Your task to perform on an android device: turn on wifi Image 0: 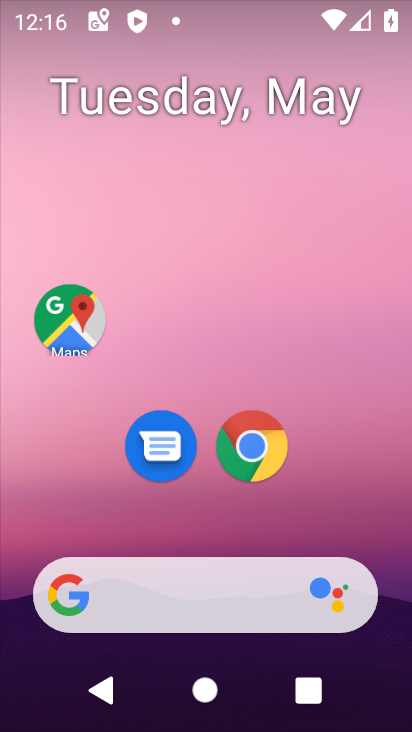
Step 0: drag from (356, 267) to (350, 14)
Your task to perform on an android device: turn on wifi Image 1: 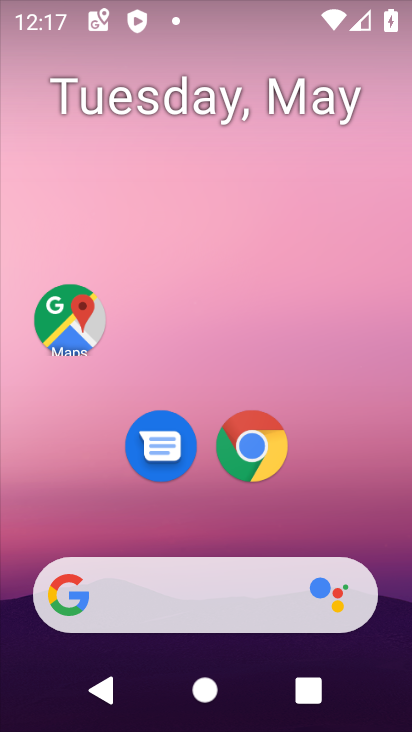
Step 1: click (387, 496)
Your task to perform on an android device: turn on wifi Image 2: 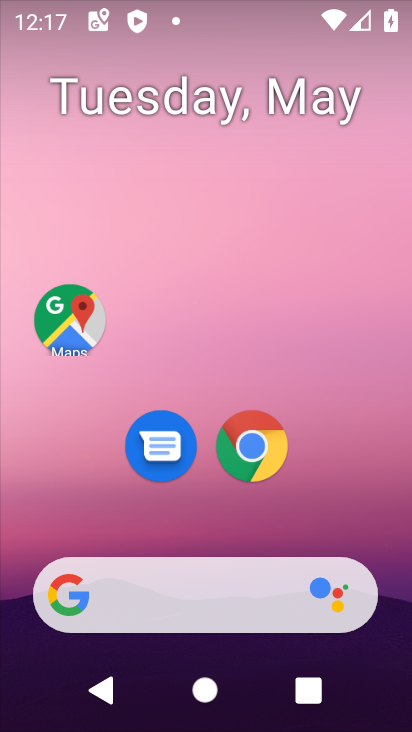
Step 2: drag from (344, 510) to (383, 2)
Your task to perform on an android device: turn on wifi Image 3: 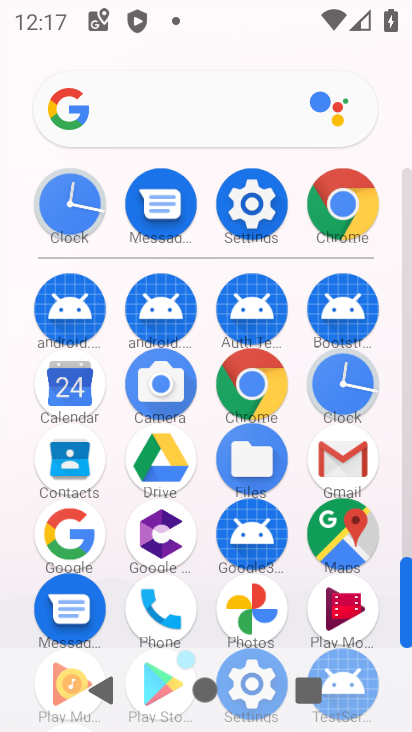
Step 3: click (262, 207)
Your task to perform on an android device: turn on wifi Image 4: 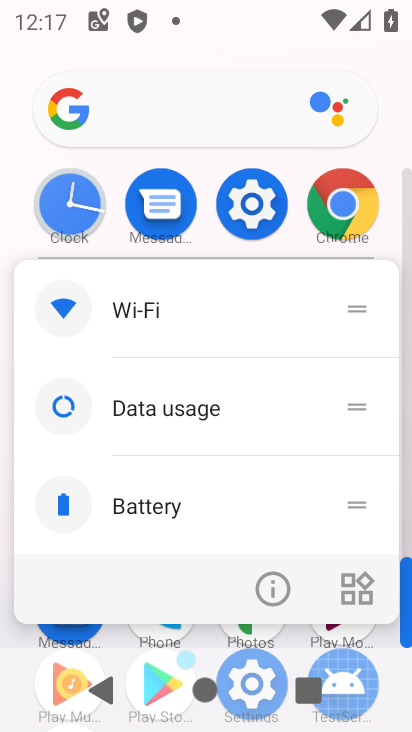
Step 4: click (257, 213)
Your task to perform on an android device: turn on wifi Image 5: 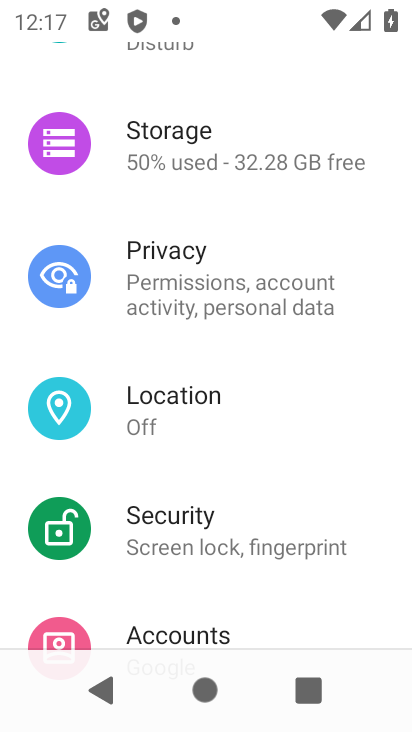
Step 5: drag from (256, 203) to (229, 610)
Your task to perform on an android device: turn on wifi Image 6: 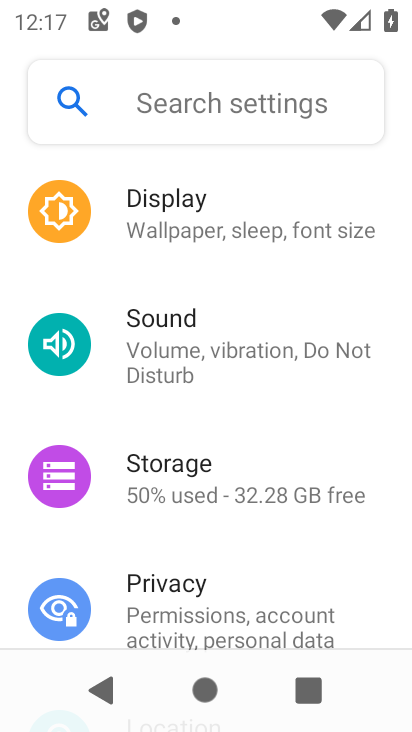
Step 6: drag from (198, 192) to (194, 608)
Your task to perform on an android device: turn on wifi Image 7: 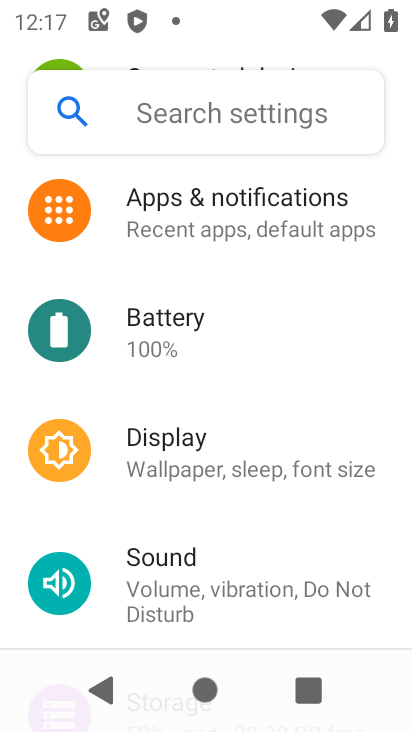
Step 7: drag from (229, 240) to (201, 651)
Your task to perform on an android device: turn on wifi Image 8: 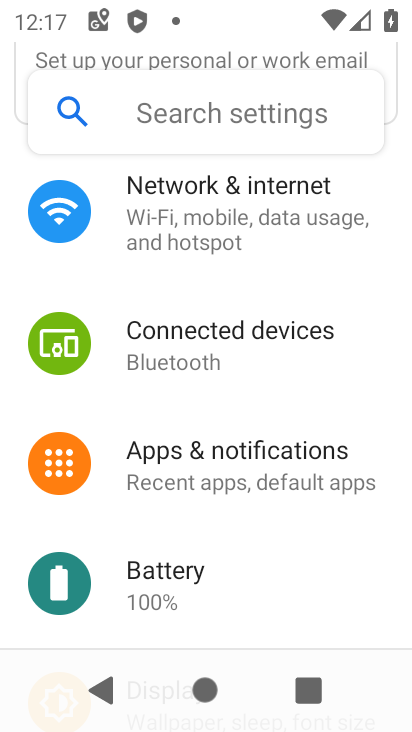
Step 8: drag from (277, 328) to (254, 653)
Your task to perform on an android device: turn on wifi Image 9: 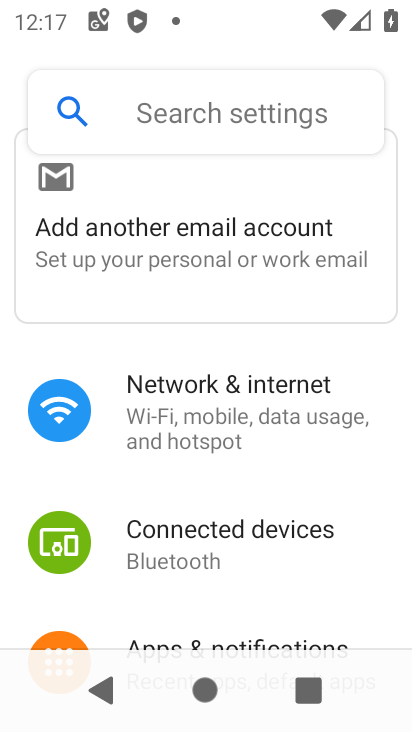
Step 9: click (231, 408)
Your task to perform on an android device: turn on wifi Image 10: 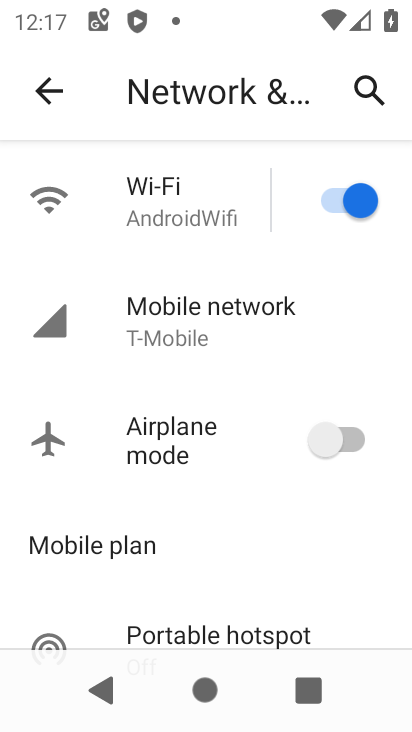
Step 10: task complete